Your task to perform on an android device: Open Google Chrome and open the bookmarks view Image 0: 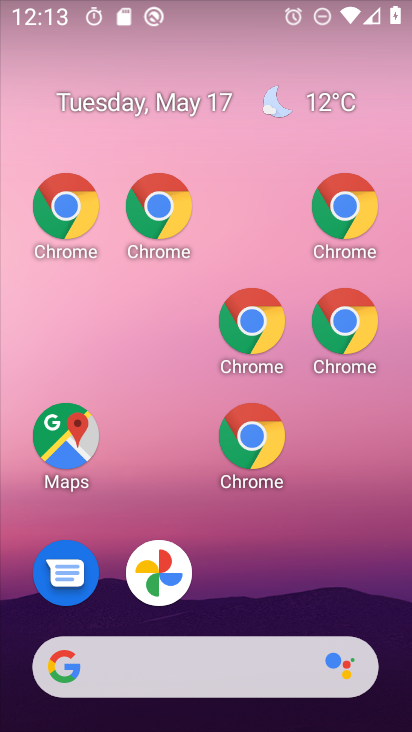
Step 0: drag from (348, 562) to (207, 179)
Your task to perform on an android device: Open Google Chrome and open the bookmarks view Image 1: 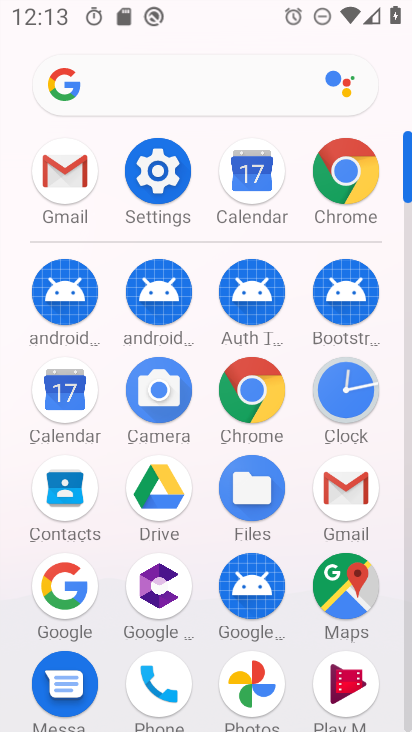
Step 1: click (331, 180)
Your task to perform on an android device: Open Google Chrome and open the bookmarks view Image 2: 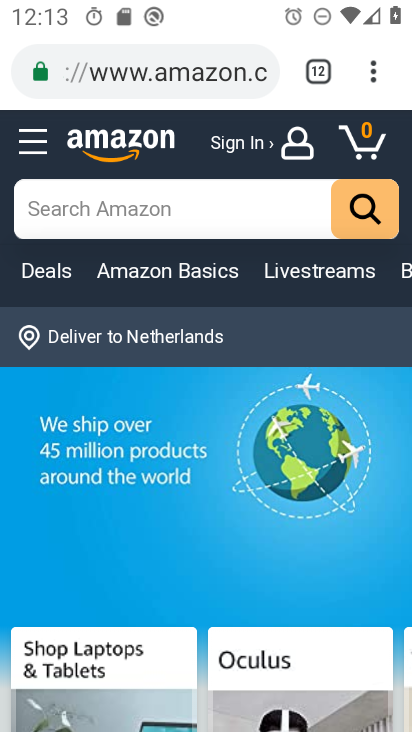
Step 2: click (373, 80)
Your task to perform on an android device: Open Google Chrome and open the bookmarks view Image 3: 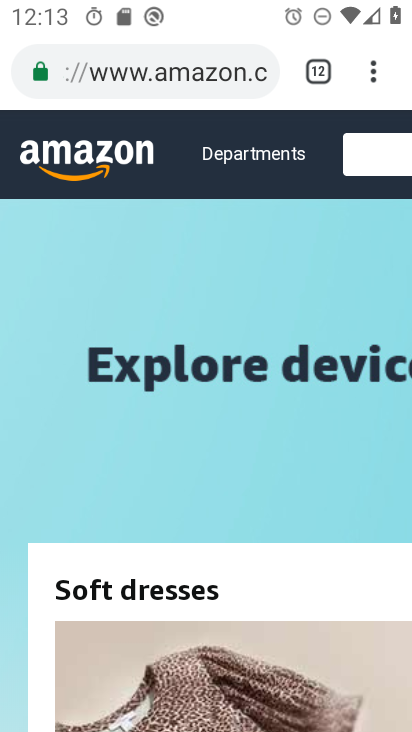
Step 3: drag from (373, 80) to (124, 307)
Your task to perform on an android device: Open Google Chrome and open the bookmarks view Image 4: 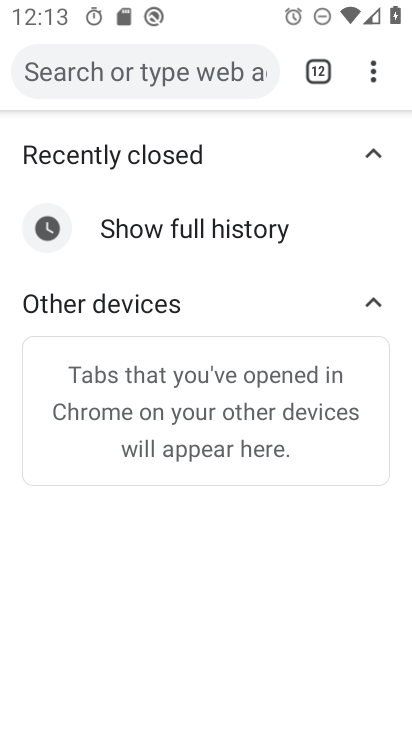
Step 4: click (377, 65)
Your task to perform on an android device: Open Google Chrome and open the bookmarks view Image 5: 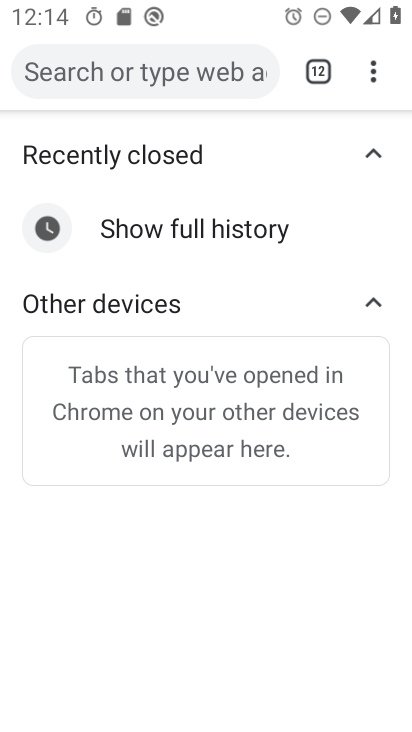
Step 5: click (360, 85)
Your task to perform on an android device: Open Google Chrome and open the bookmarks view Image 6: 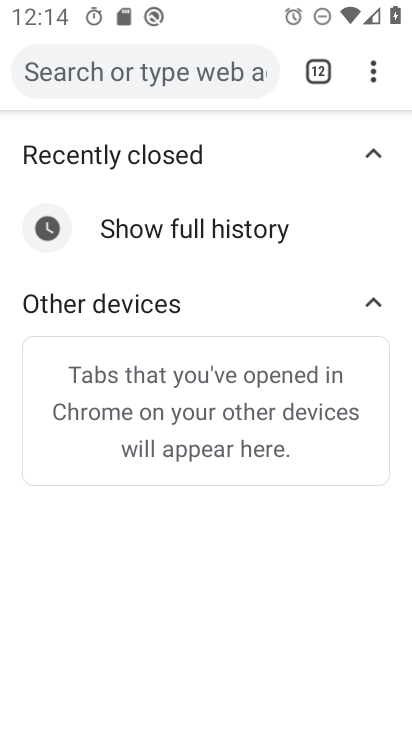
Step 6: click (165, 273)
Your task to perform on an android device: Open Google Chrome and open the bookmarks view Image 7: 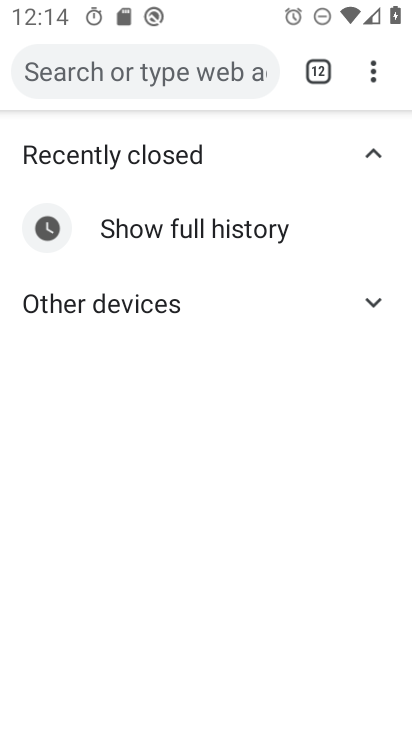
Step 7: click (371, 67)
Your task to perform on an android device: Open Google Chrome and open the bookmarks view Image 8: 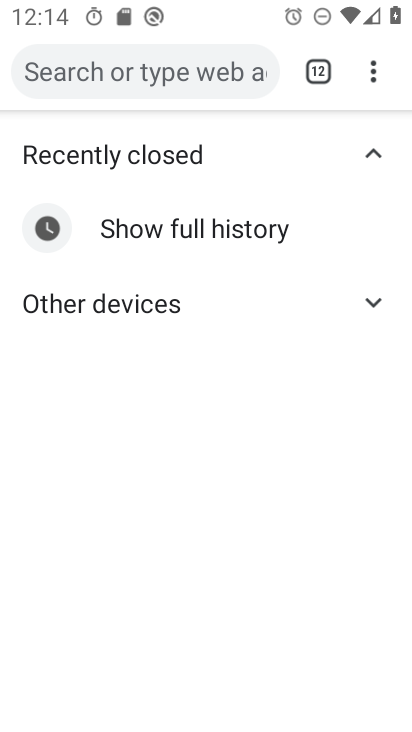
Step 8: task complete